Your task to perform on an android device: uninstall "Google Chrome" Image 0: 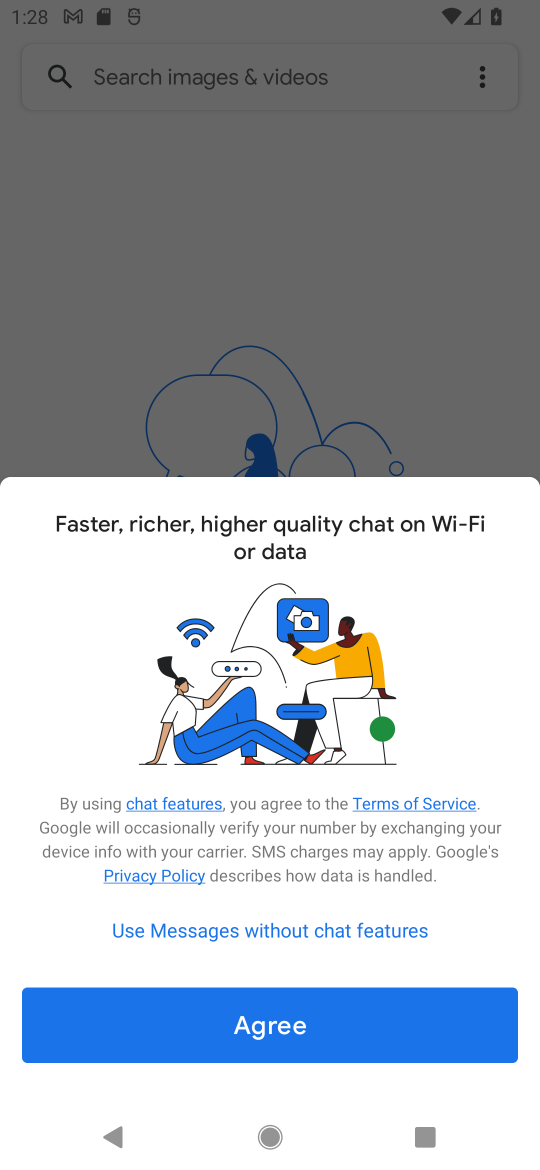
Step 0: press home button
Your task to perform on an android device: uninstall "Google Chrome" Image 1: 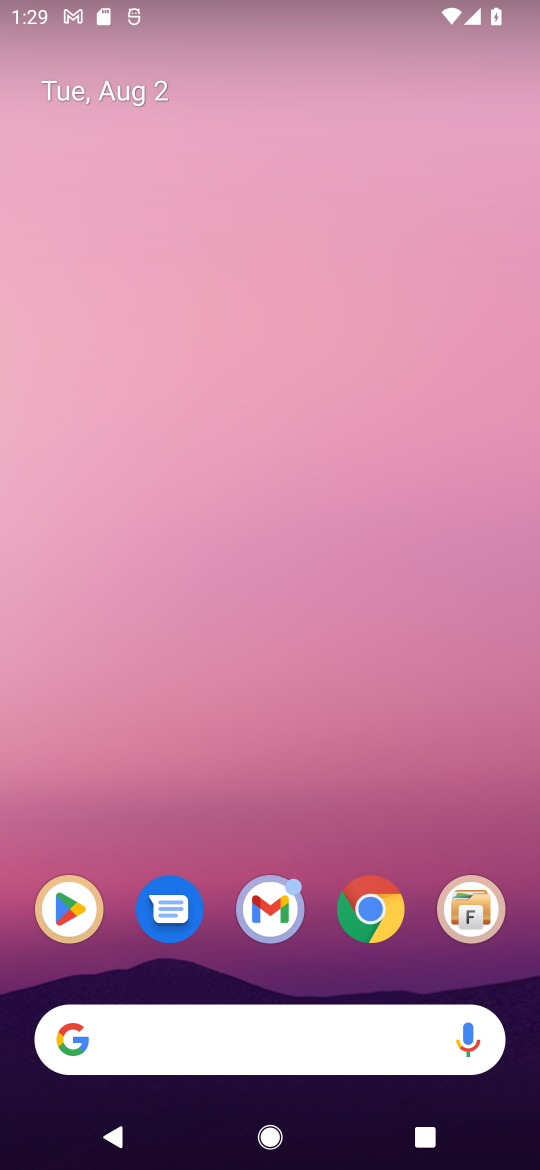
Step 1: click (79, 903)
Your task to perform on an android device: uninstall "Google Chrome" Image 2: 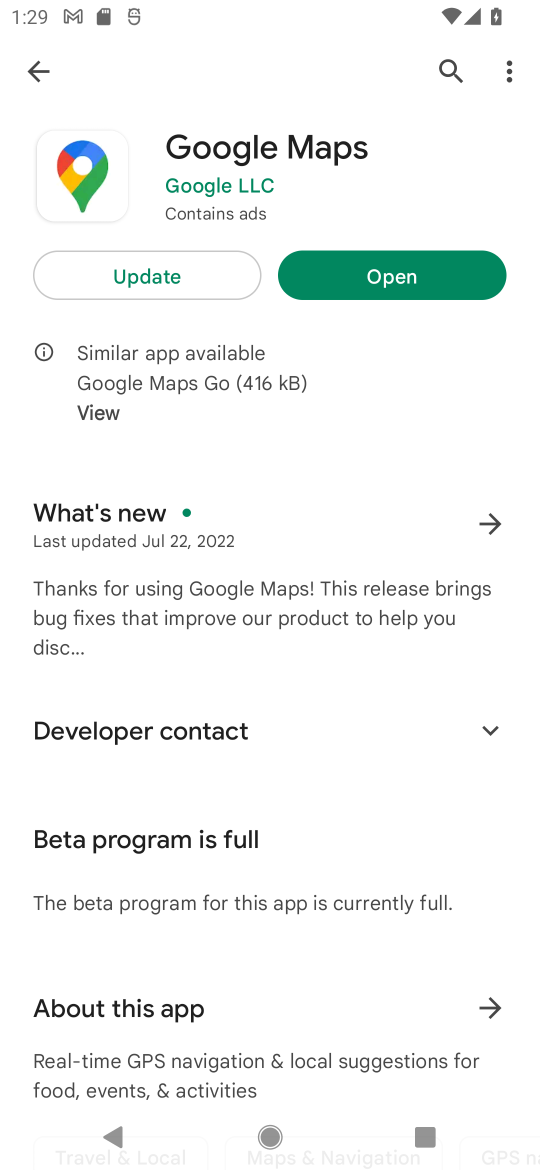
Step 2: click (79, 903)
Your task to perform on an android device: uninstall "Google Chrome" Image 3: 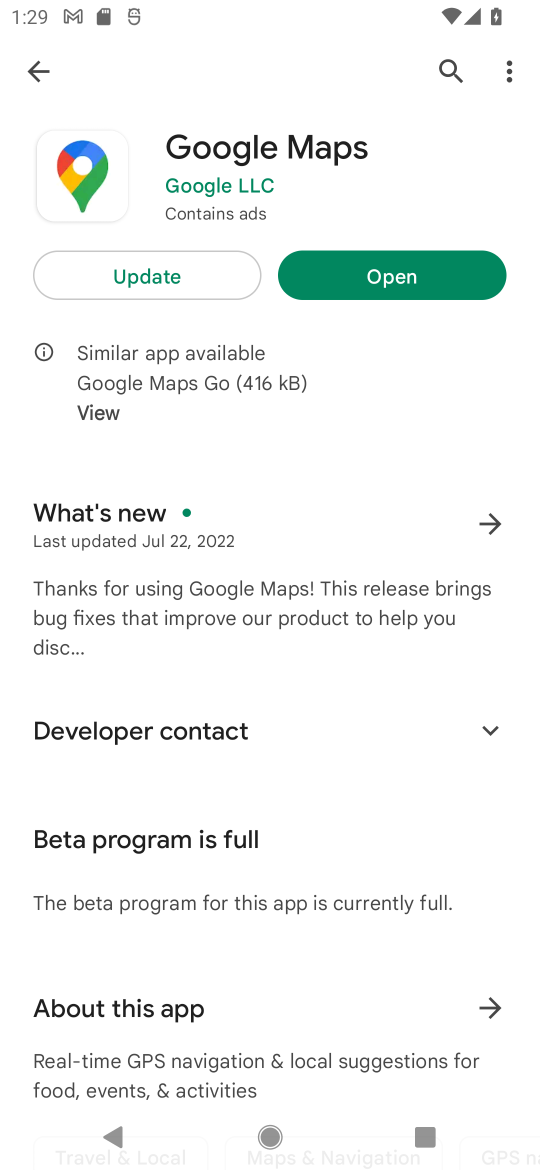
Step 3: click (32, 68)
Your task to perform on an android device: uninstall "Google Chrome" Image 4: 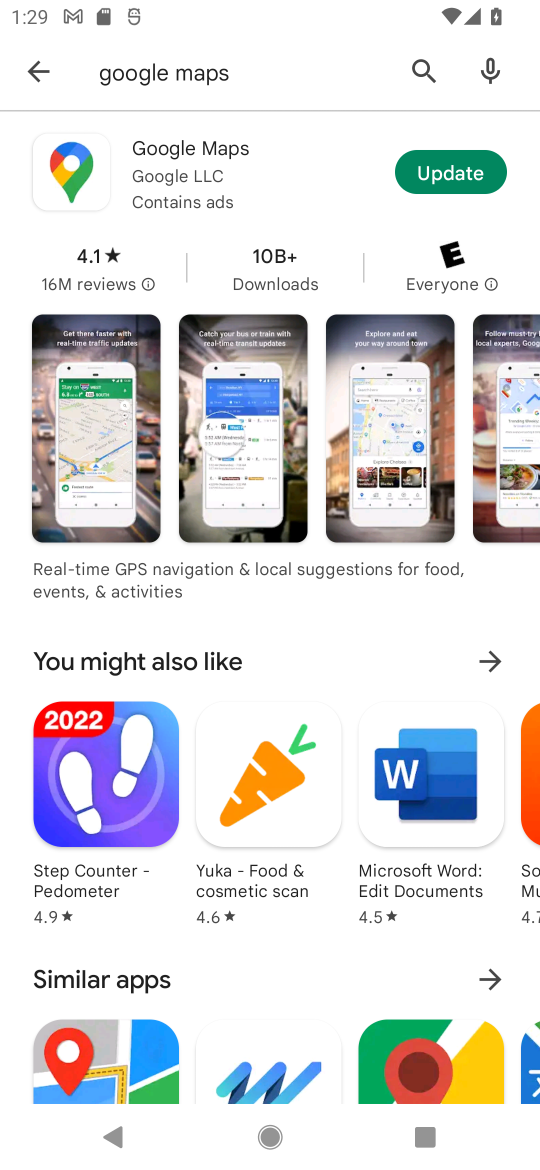
Step 4: click (429, 67)
Your task to perform on an android device: uninstall "Google Chrome" Image 5: 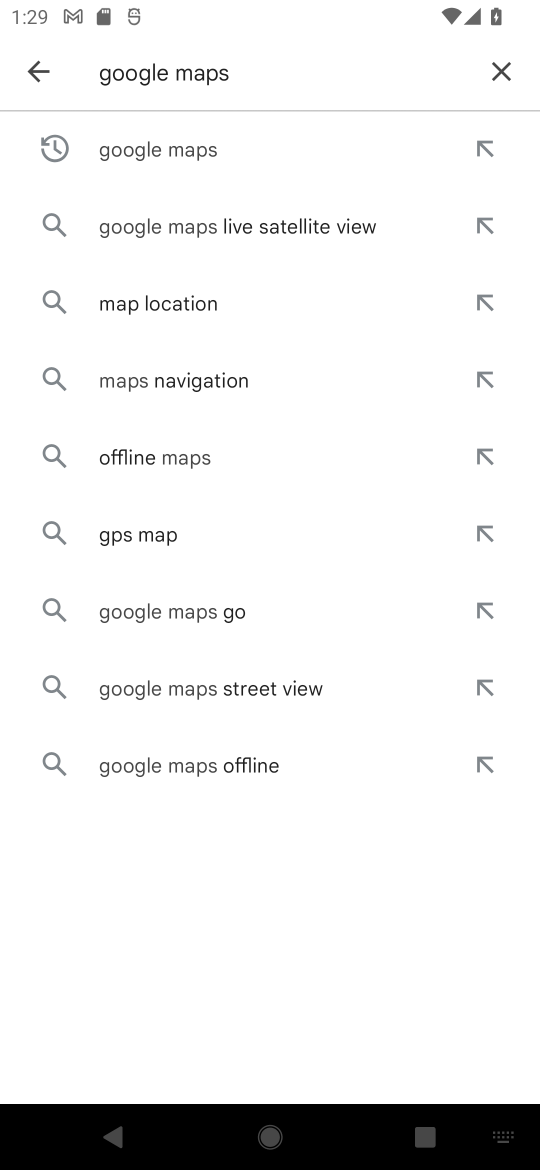
Step 5: click (499, 65)
Your task to perform on an android device: uninstall "Google Chrome" Image 6: 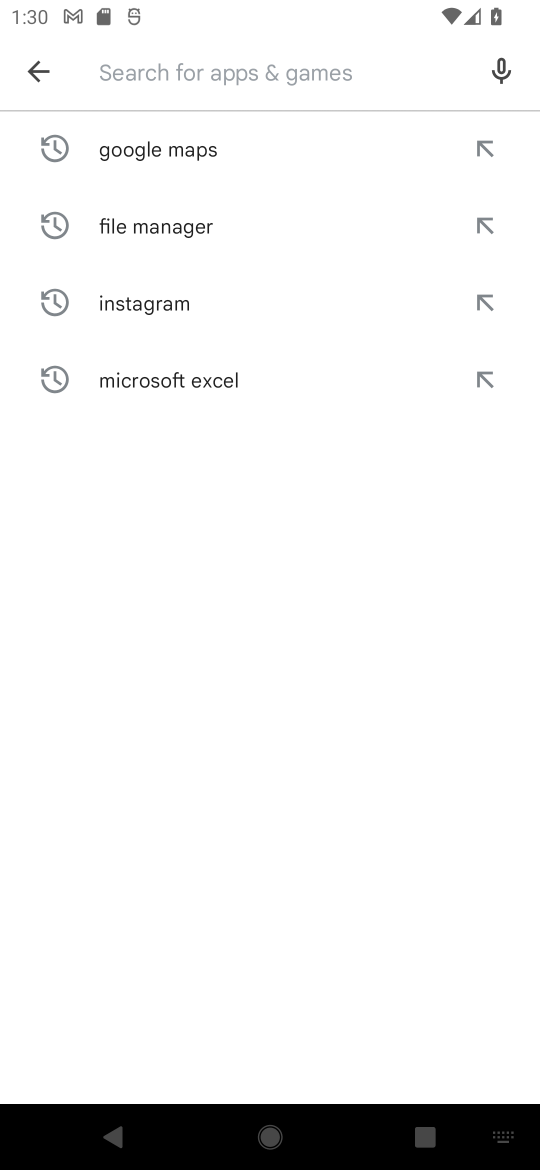
Step 6: click (333, 85)
Your task to perform on an android device: uninstall "Google Chrome" Image 7: 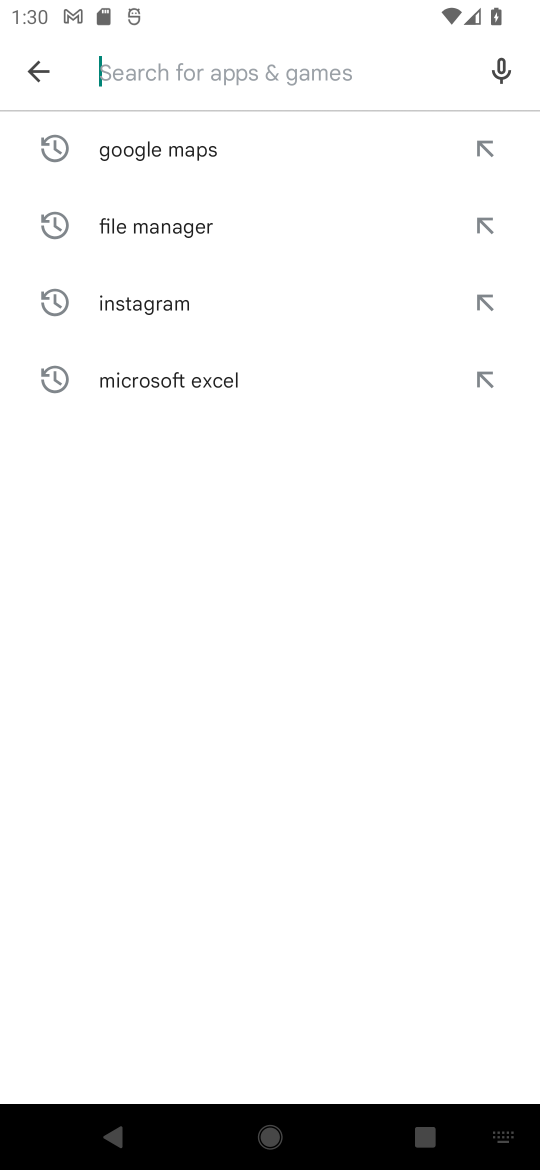
Step 7: type "Google chrome"
Your task to perform on an android device: uninstall "Google Chrome" Image 8: 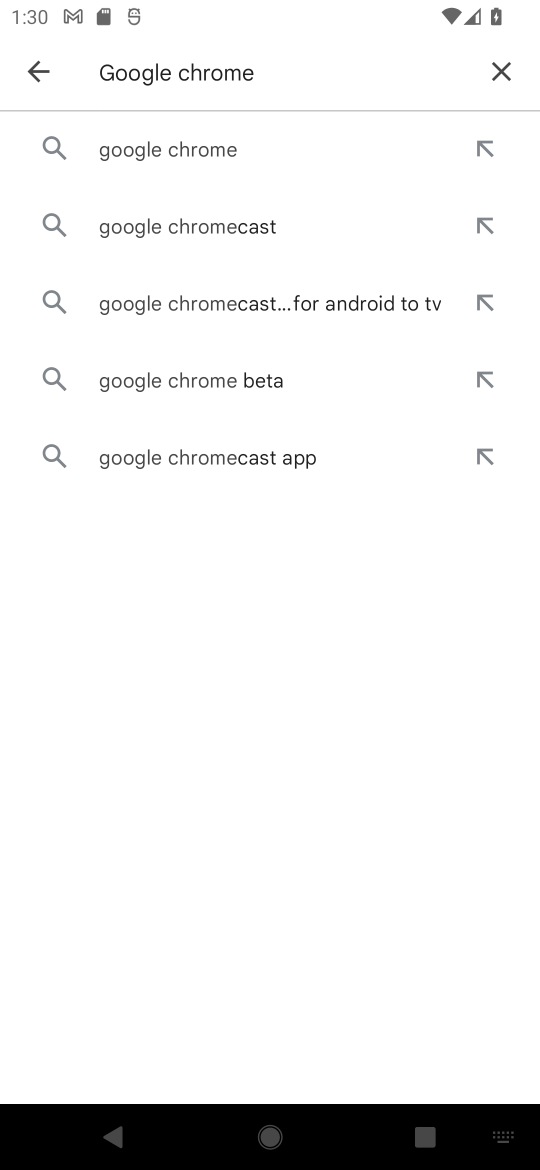
Step 8: click (150, 155)
Your task to perform on an android device: uninstall "Google Chrome" Image 9: 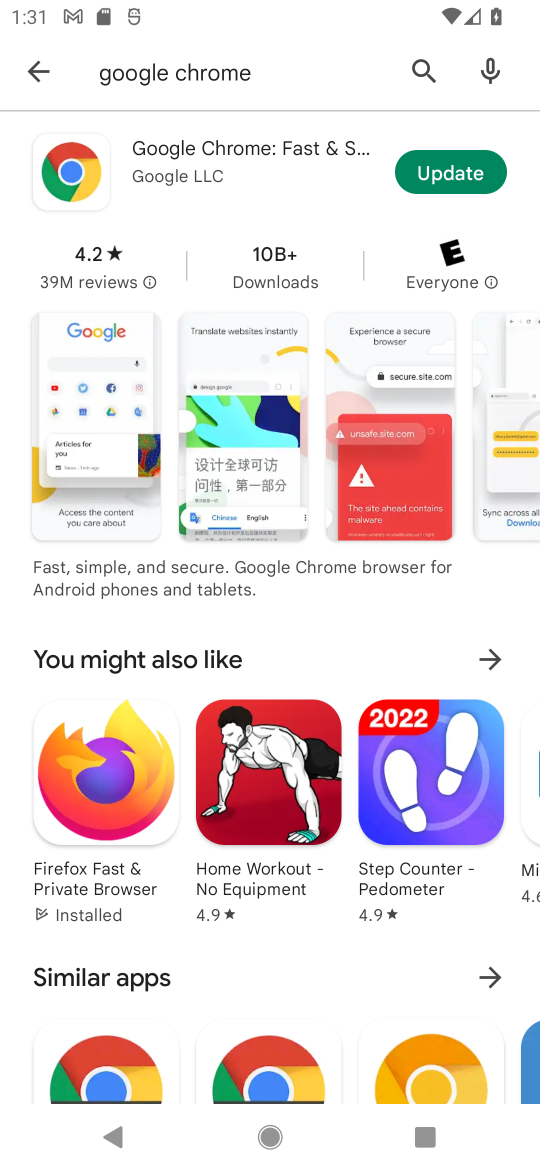
Step 9: click (249, 161)
Your task to perform on an android device: uninstall "Google Chrome" Image 10: 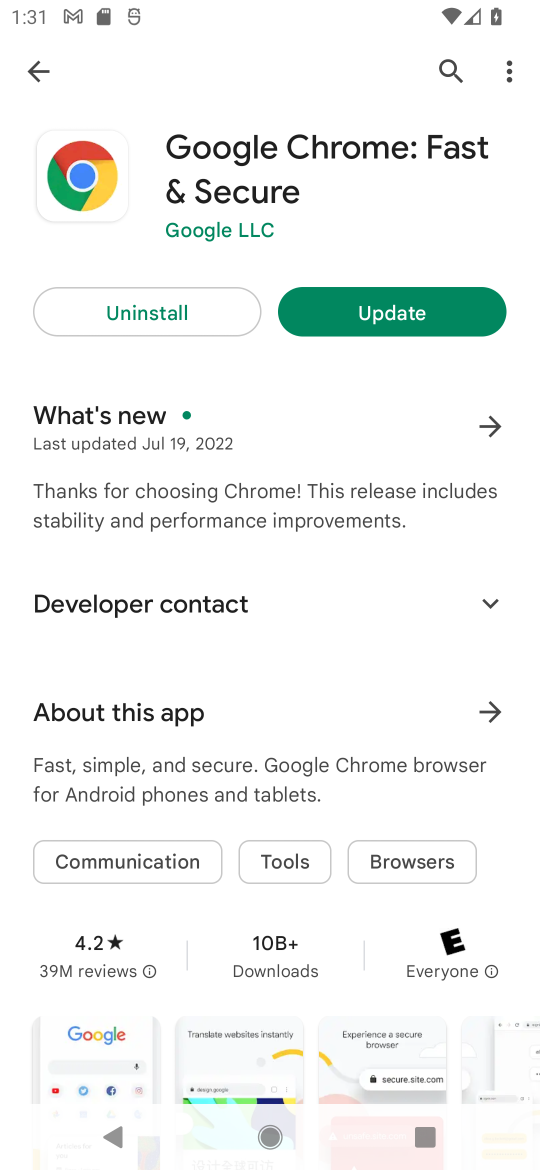
Step 10: click (144, 299)
Your task to perform on an android device: uninstall "Google Chrome" Image 11: 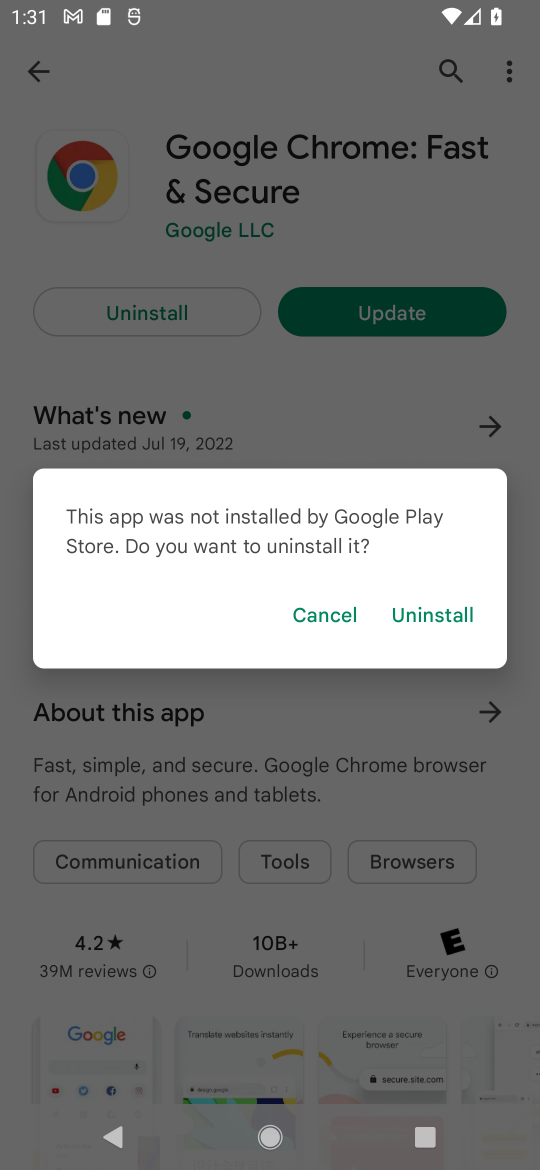
Step 11: click (443, 603)
Your task to perform on an android device: uninstall "Google Chrome" Image 12: 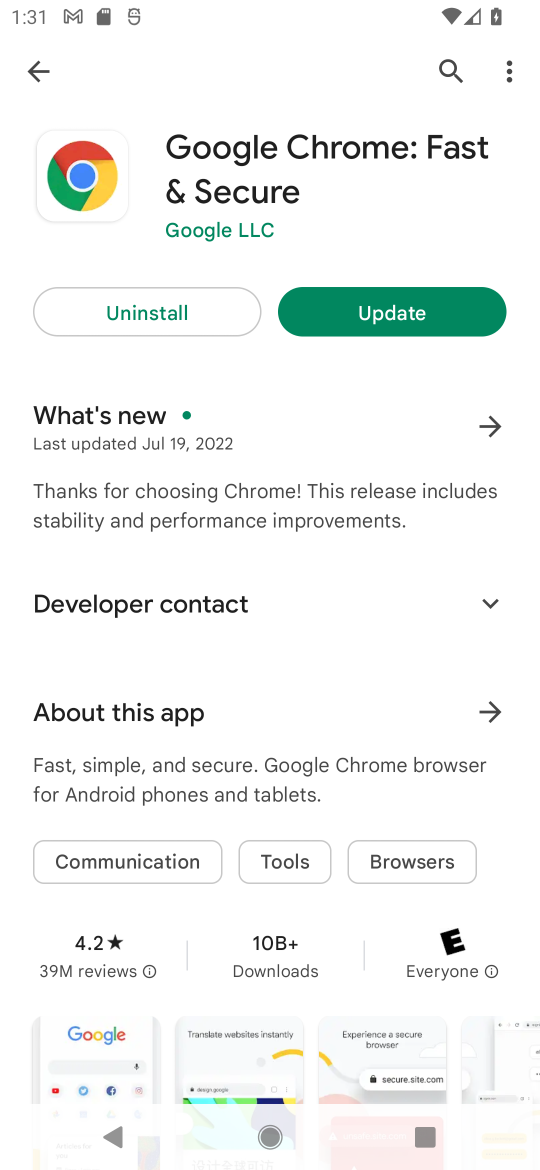
Step 12: task complete